Your task to perform on an android device: Check the latest 3D printers on Target. Image 0: 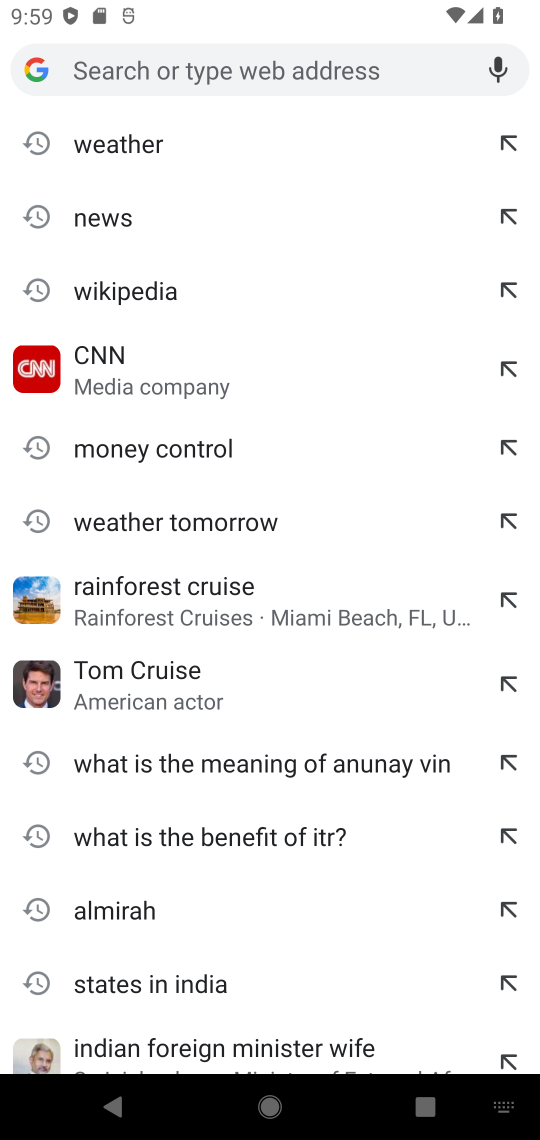
Step 0: press home button
Your task to perform on an android device: Check the latest 3D printers on Target. Image 1: 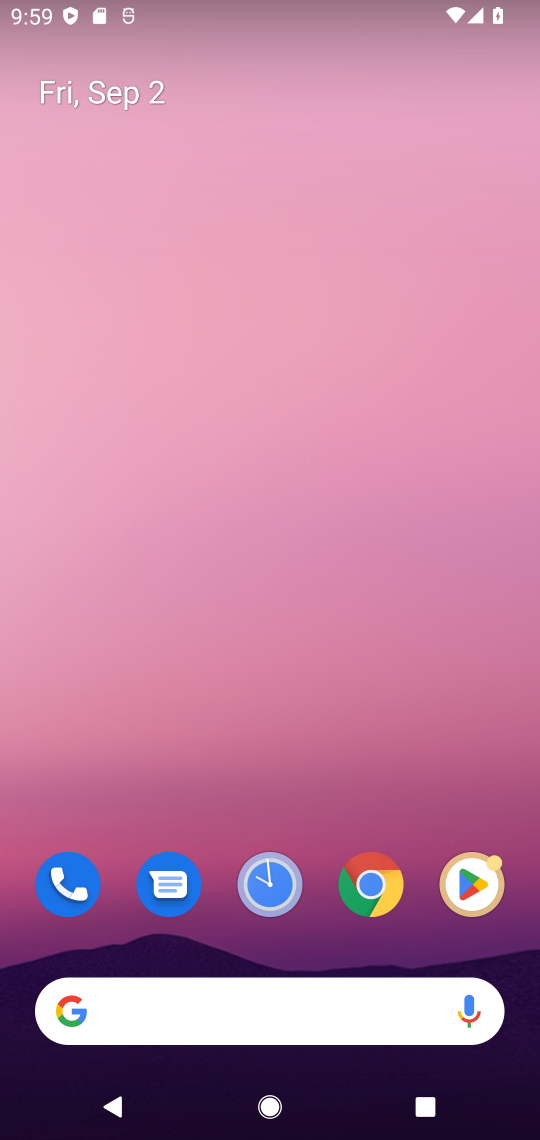
Step 1: click (411, 354)
Your task to perform on an android device: Check the latest 3D printers on Target. Image 2: 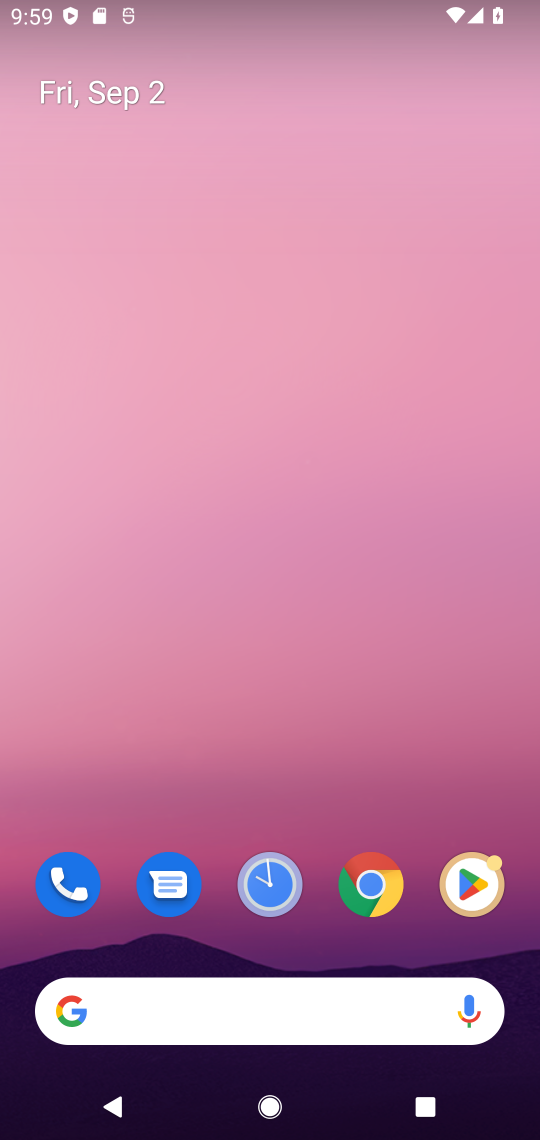
Step 2: drag from (316, 998) to (339, 238)
Your task to perform on an android device: Check the latest 3D printers on Target. Image 3: 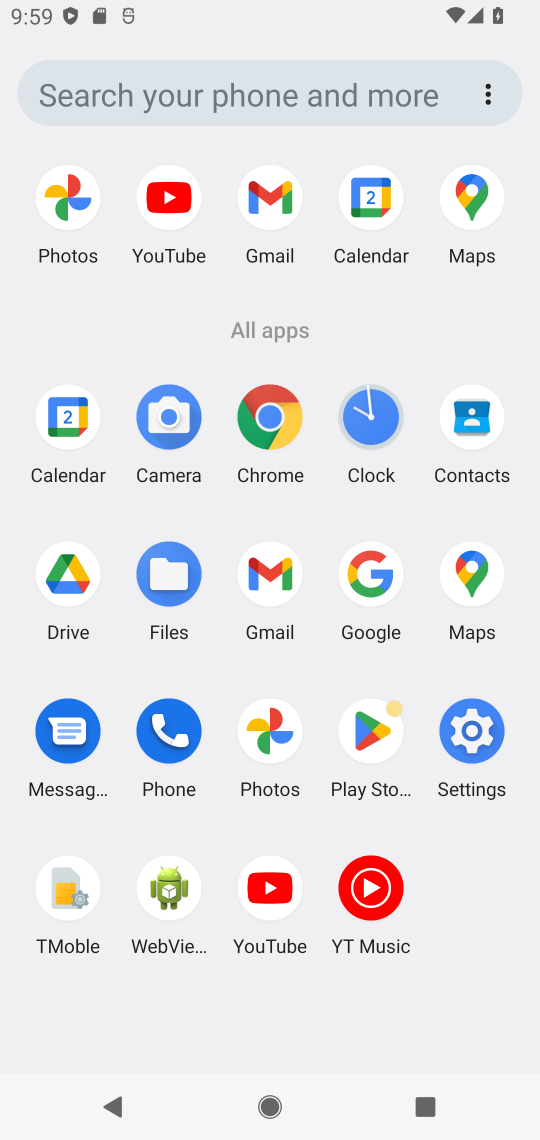
Step 3: click (287, 458)
Your task to perform on an android device: Check the latest 3D printers on Target. Image 4: 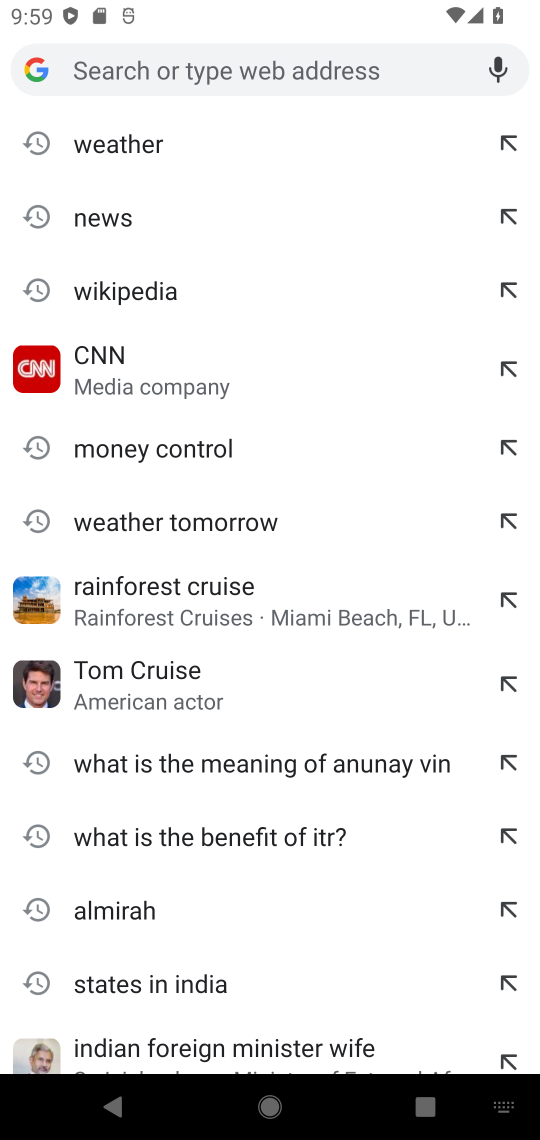
Step 4: type "target"
Your task to perform on an android device: Check the latest 3D printers on Target. Image 5: 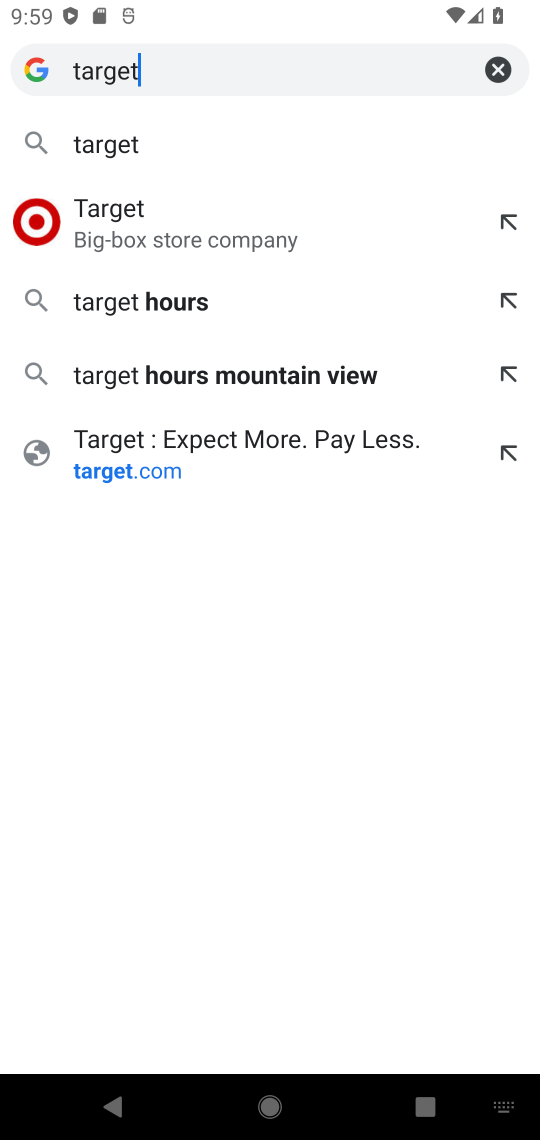
Step 5: click (382, 227)
Your task to perform on an android device: Check the latest 3D printers on Target. Image 6: 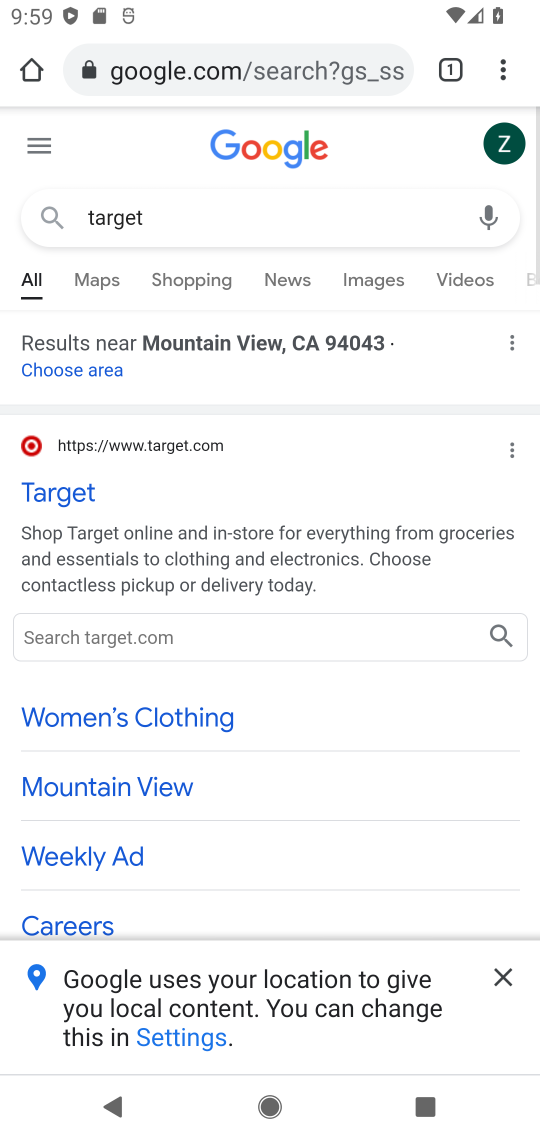
Step 6: click (502, 976)
Your task to perform on an android device: Check the latest 3D printers on Target. Image 7: 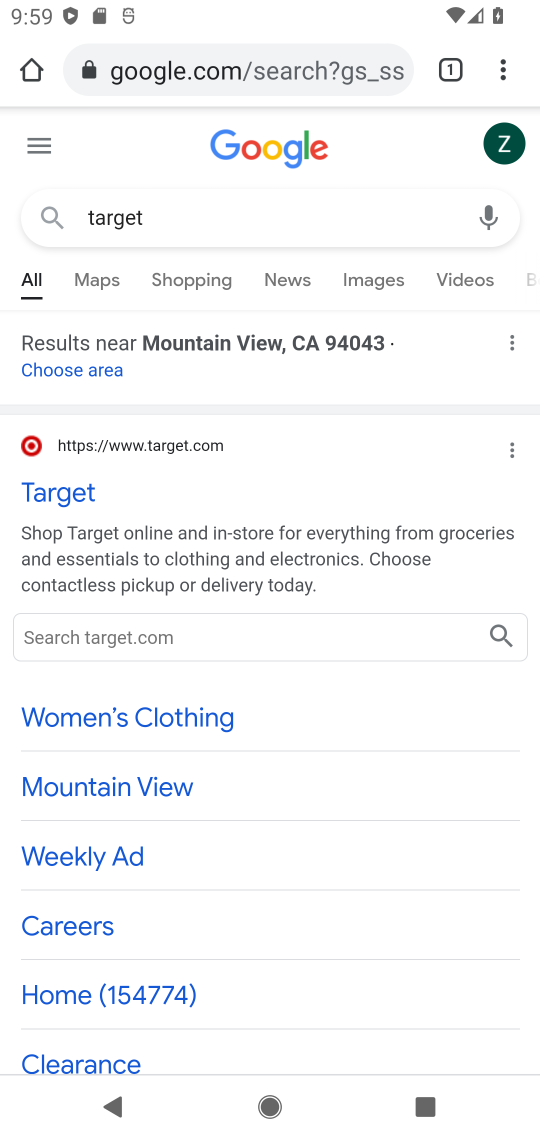
Step 7: click (59, 501)
Your task to perform on an android device: Check the latest 3D printers on Target. Image 8: 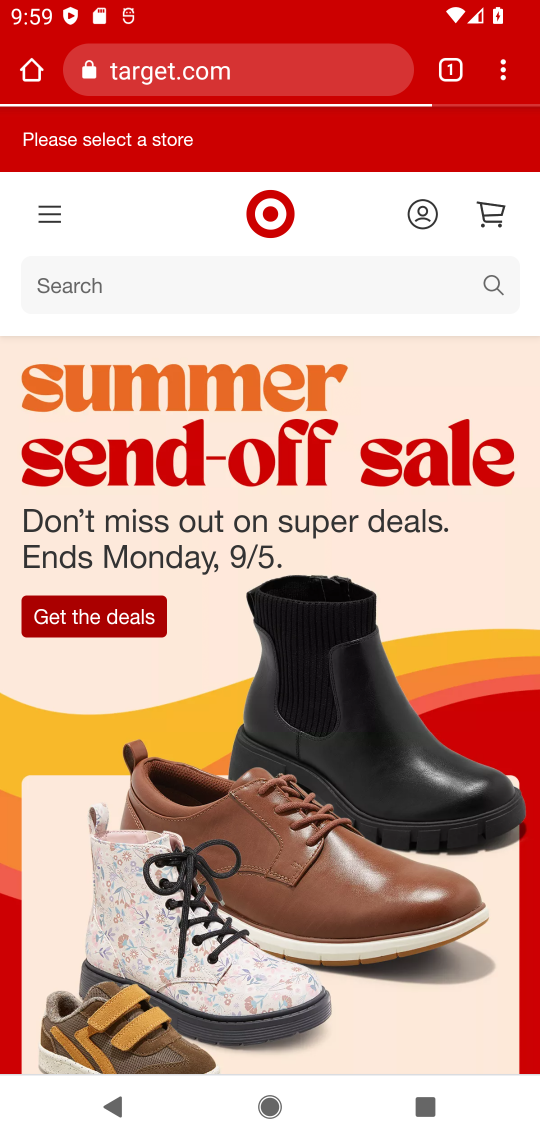
Step 8: click (413, 281)
Your task to perform on an android device: Check the latest 3D printers on Target. Image 9: 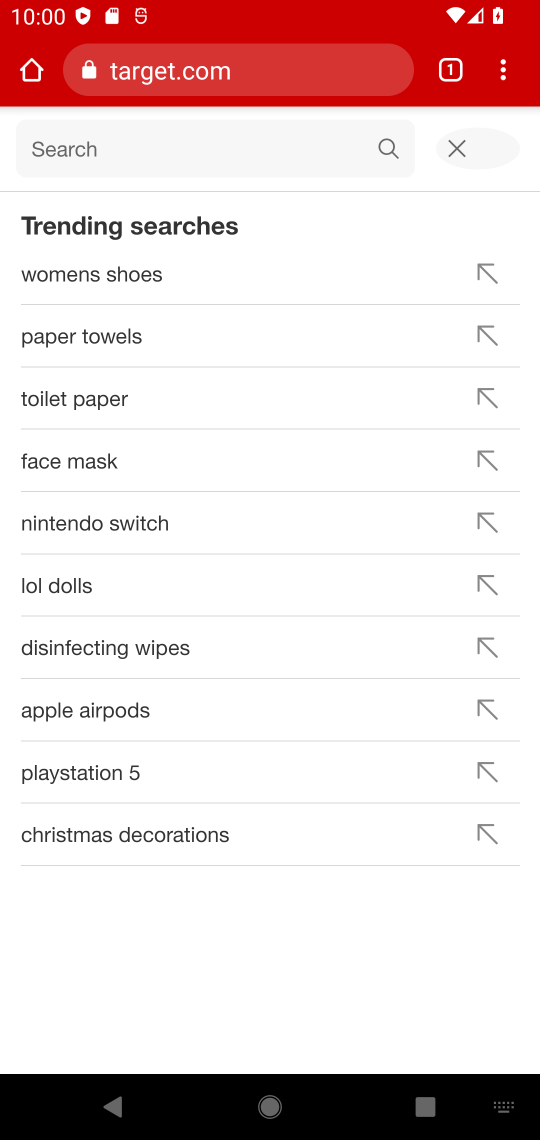
Step 9: type "3D printers"
Your task to perform on an android device: Check the latest 3D printers on Target. Image 10: 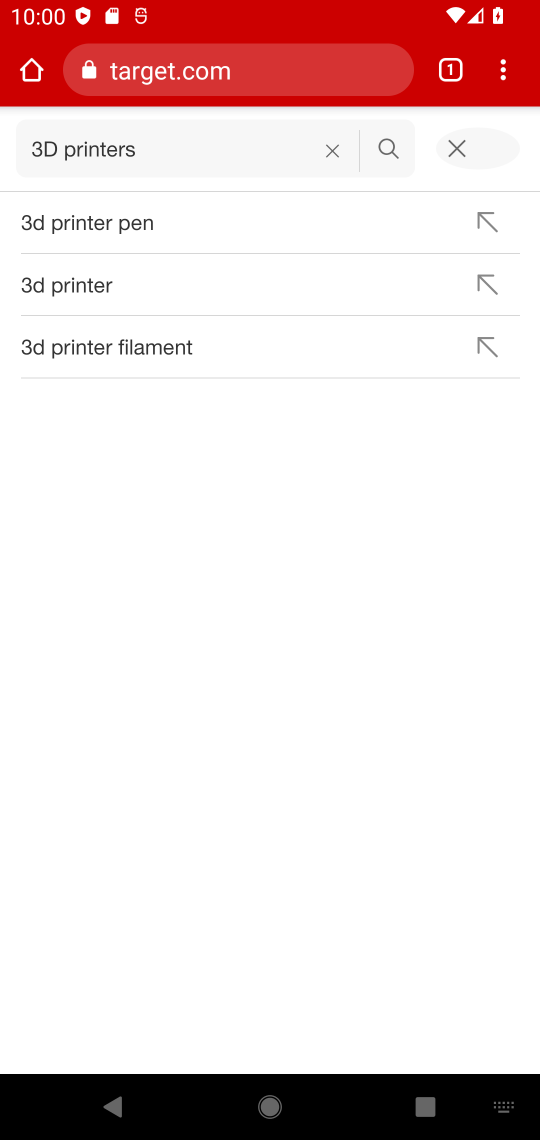
Step 10: click (171, 288)
Your task to perform on an android device: Check the latest 3D printers on Target. Image 11: 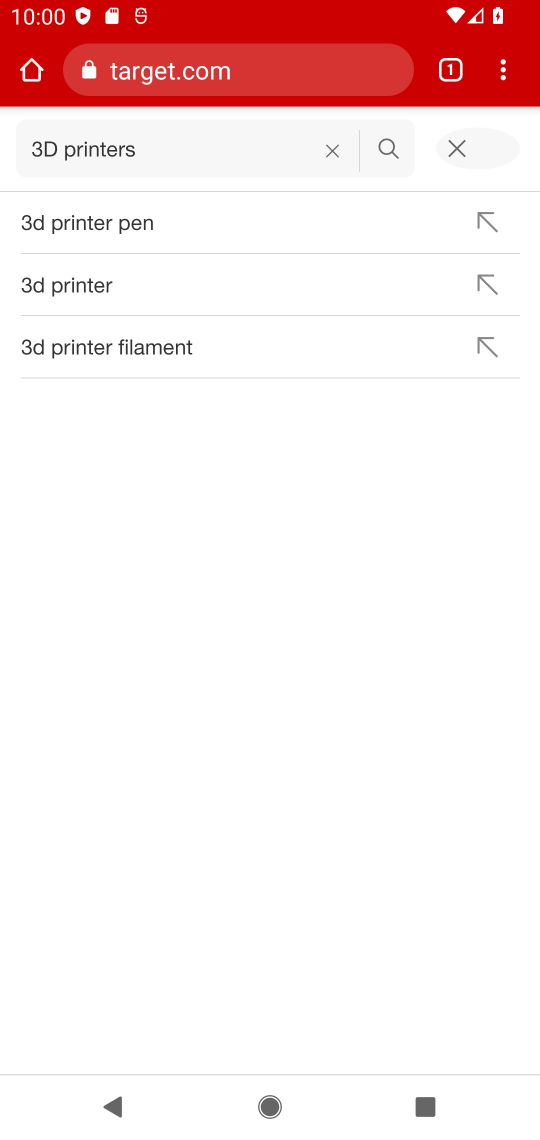
Step 11: click (98, 292)
Your task to perform on an android device: Check the latest 3D printers on Target. Image 12: 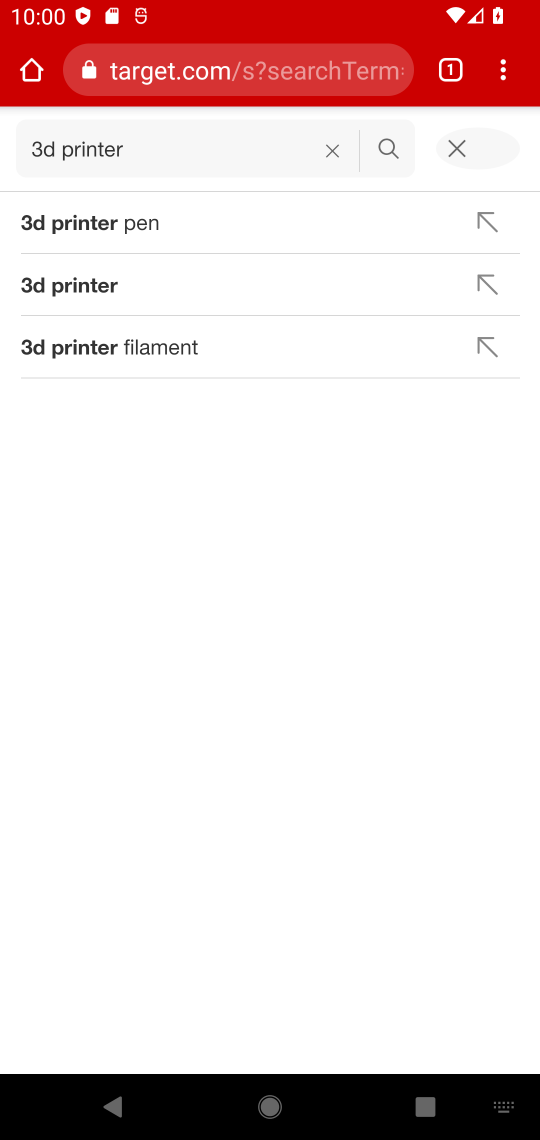
Step 12: click (98, 292)
Your task to perform on an android device: Check the latest 3D printers on Target. Image 13: 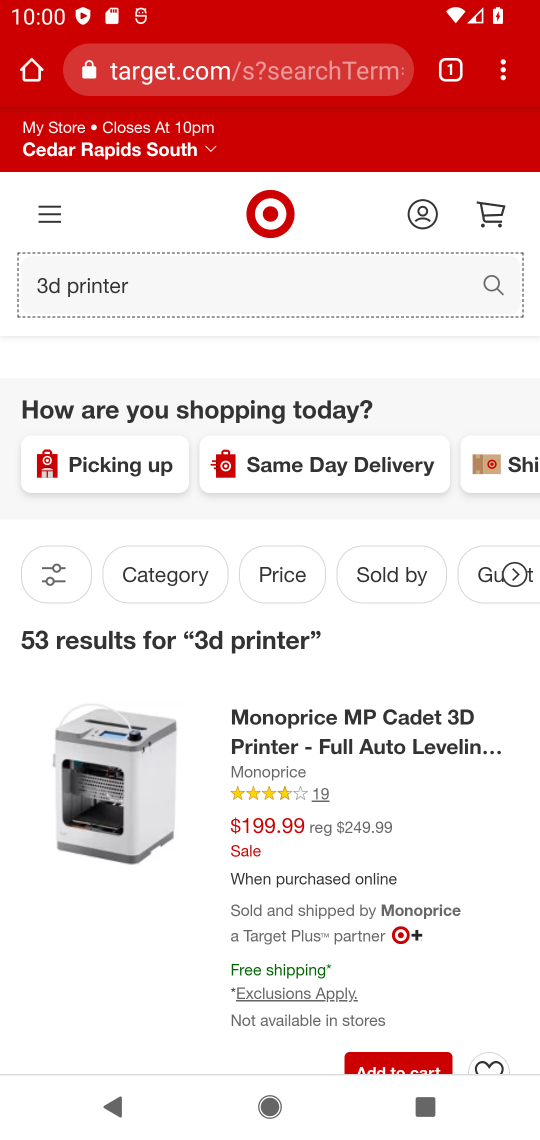
Step 13: task complete